Your task to perform on an android device: When is my next meeting? Image 0: 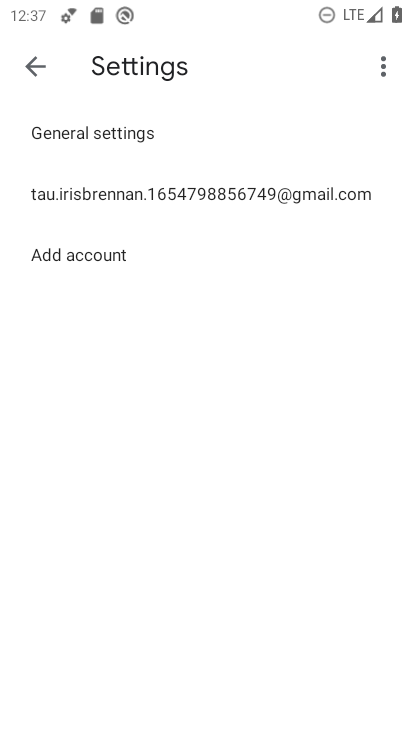
Step 0: press home button
Your task to perform on an android device: When is my next meeting? Image 1: 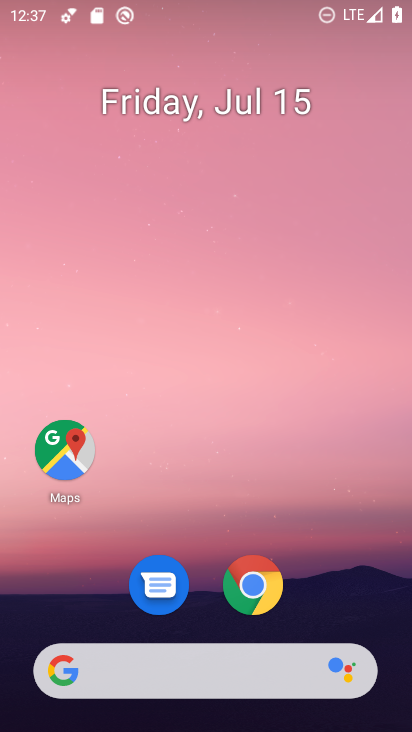
Step 1: drag from (357, 562) to (216, 47)
Your task to perform on an android device: When is my next meeting? Image 2: 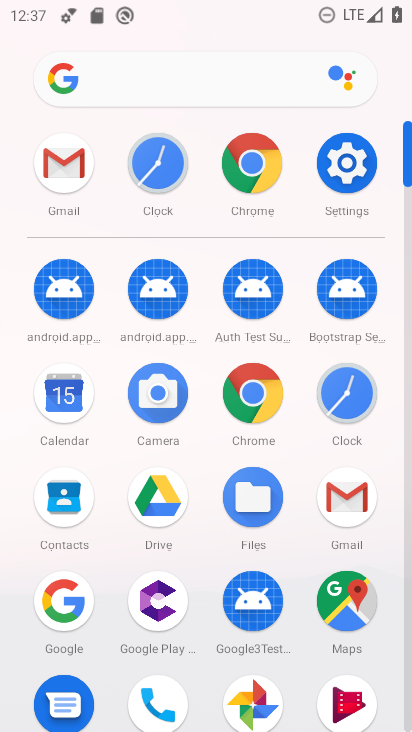
Step 2: click (68, 417)
Your task to perform on an android device: When is my next meeting? Image 3: 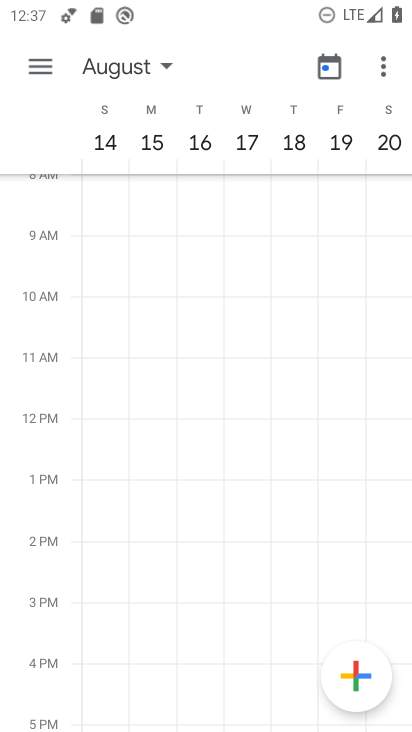
Step 3: drag from (127, 309) to (397, 335)
Your task to perform on an android device: When is my next meeting? Image 4: 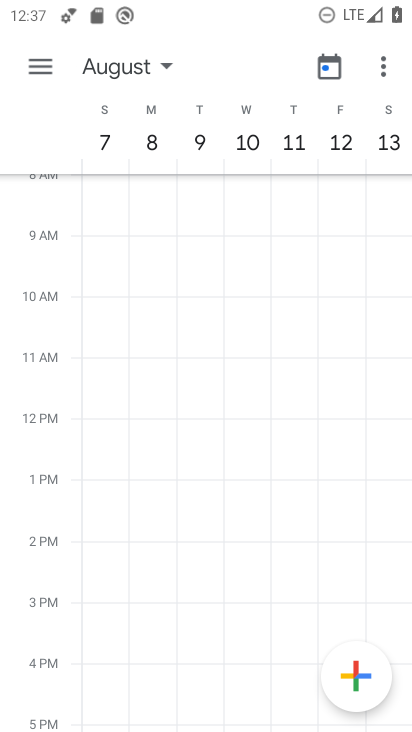
Step 4: drag from (132, 368) to (403, 410)
Your task to perform on an android device: When is my next meeting? Image 5: 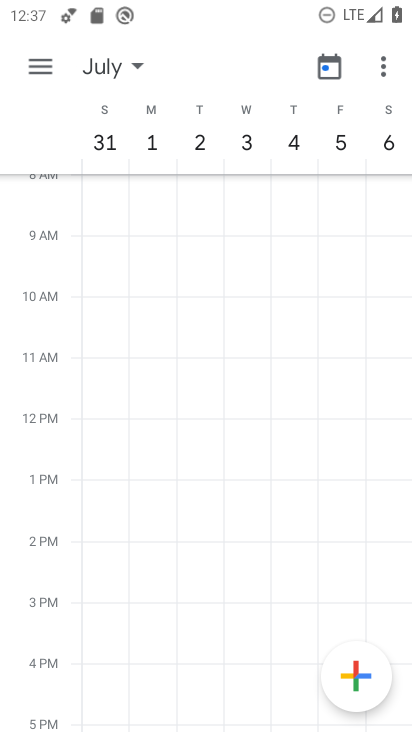
Step 5: drag from (102, 398) to (399, 425)
Your task to perform on an android device: When is my next meeting? Image 6: 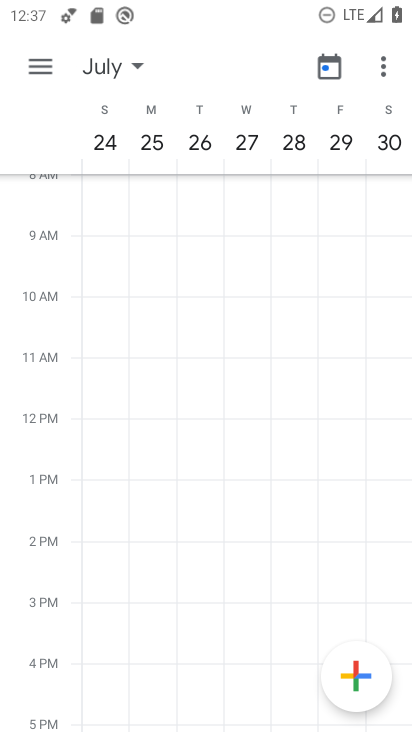
Step 6: drag from (104, 400) to (384, 421)
Your task to perform on an android device: When is my next meeting? Image 7: 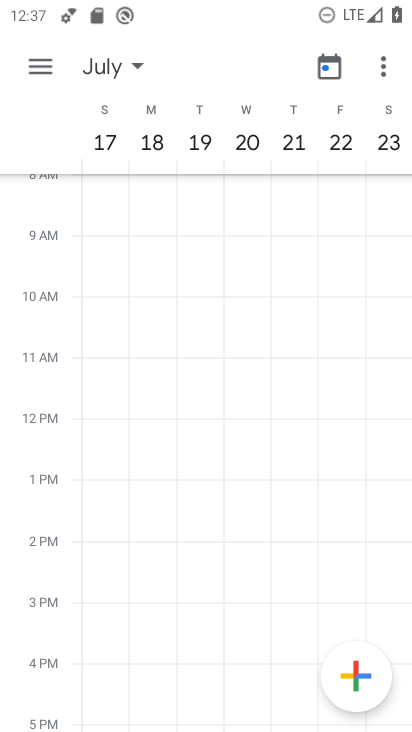
Step 7: drag from (119, 432) to (401, 483)
Your task to perform on an android device: When is my next meeting? Image 8: 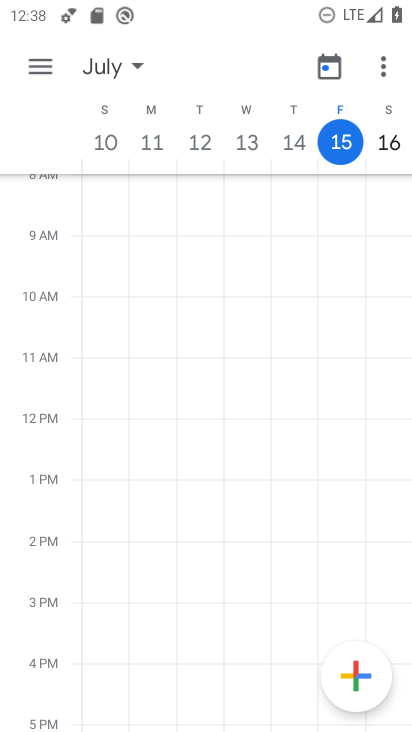
Step 8: click (336, 145)
Your task to perform on an android device: When is my next meeting? Image 9: 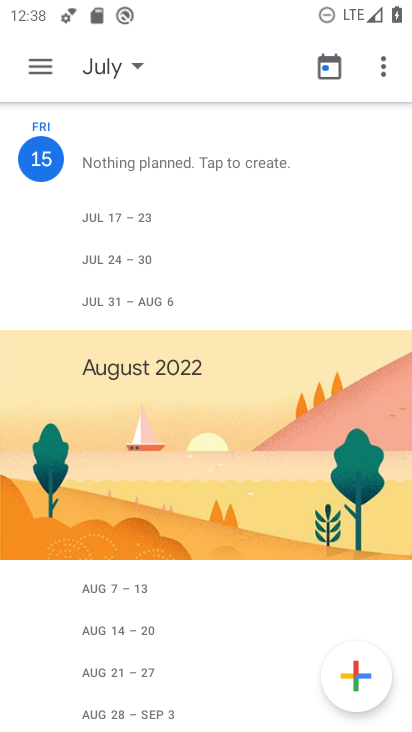
Step 9: task complete